Your task to perform on an android device: open a new tab in the chrome app Image 0: 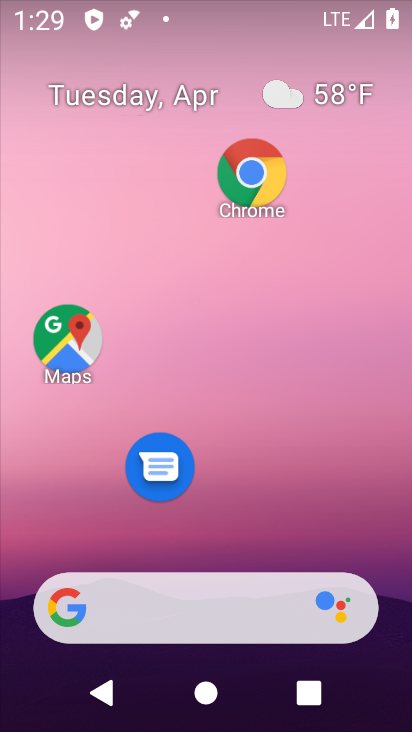
Step 0: drag from (240, 536) to (188, 1)
Your task to perform on an android device: open a new tab in the chrome app Image 1: 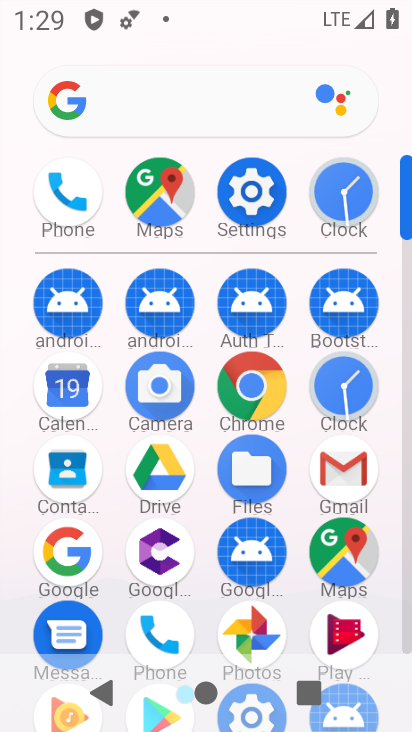
Step 1: click (266, 400)
Your task to perform on an android device: open a new tab in the chrome app Image 2: 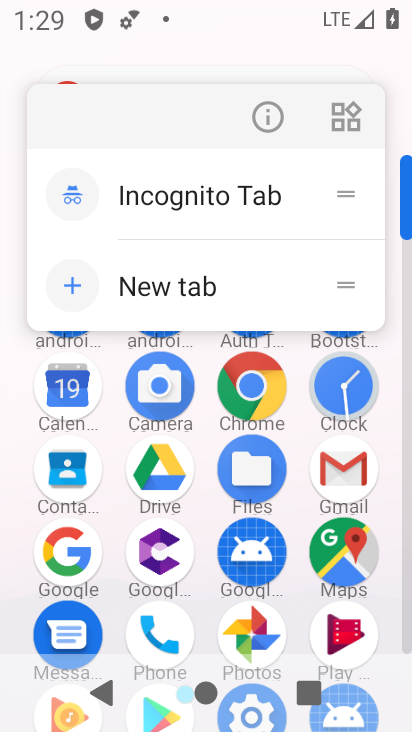
Step 2: click (211, 284)
Your task to perform on an android device: open a new tab in the chrome app Image 3: 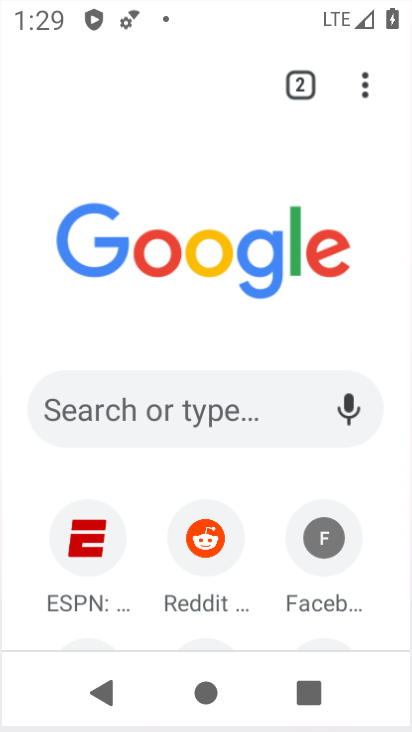
Step 3: click (211, 284)
Your task to perform on an android device: open a new tab in the chrome app Image 4: 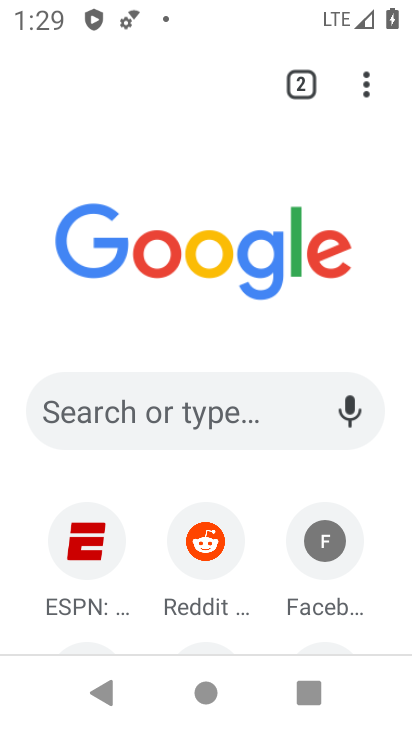
Step 4: task complete